Your task to perform on an android device: turn off airplane mode Image 0: 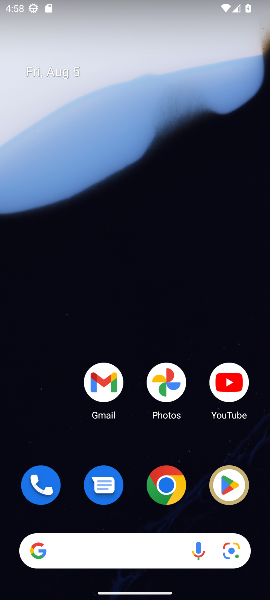
Step 0: drag from (194, 11) to (219, 597)
Your task to perform on an android device: turn off airplane mode Image 1: 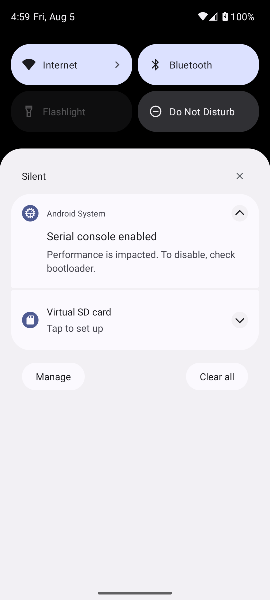
Step 1: task complete